Your task to perform on an android device: Toggle the flashlight Image 0: 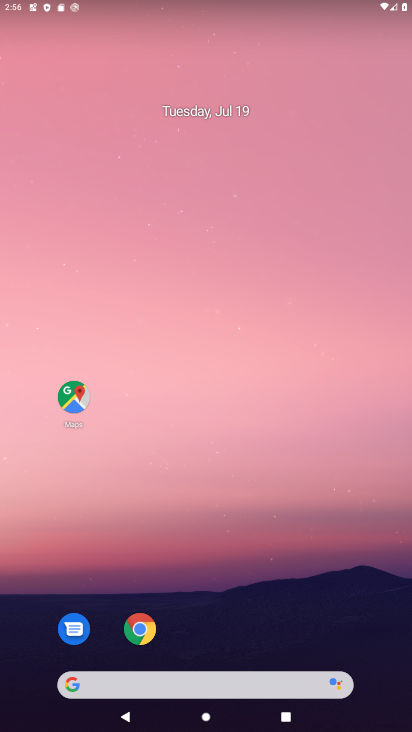
Step 0: drag from (209, 15) to (230, 534)
Your task to perform on an android device: Toggle the flashlight Image 1: 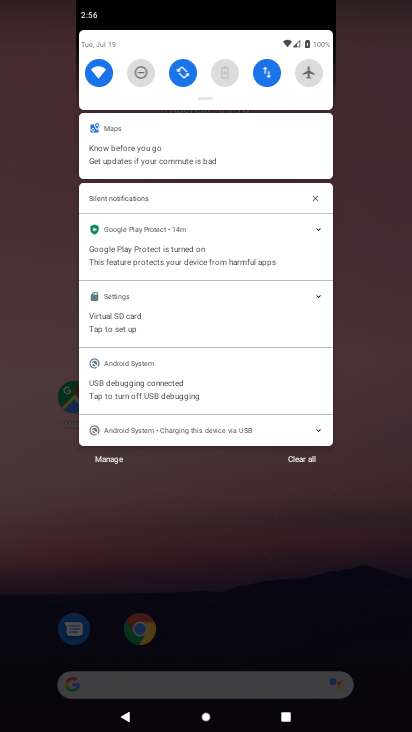
Step 1: task complete